Your task to perform on an android device: toggle notifications settings in the gmail app Image 0: 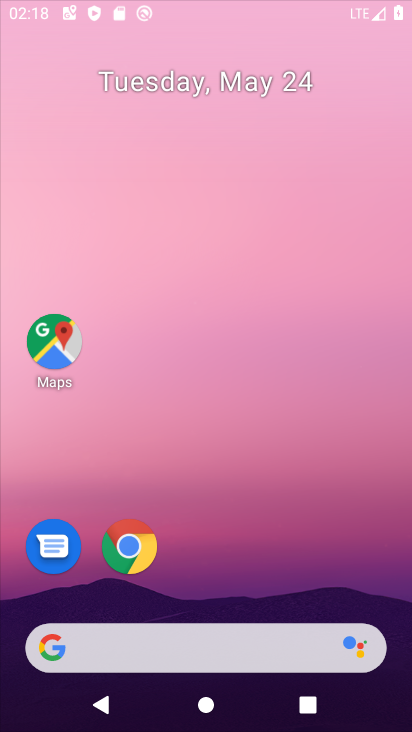
Step 0: drag from (202, 573) to (258, 84)
Your task to perform on an android device: toggle notifications settings in the gmail app Image 1: 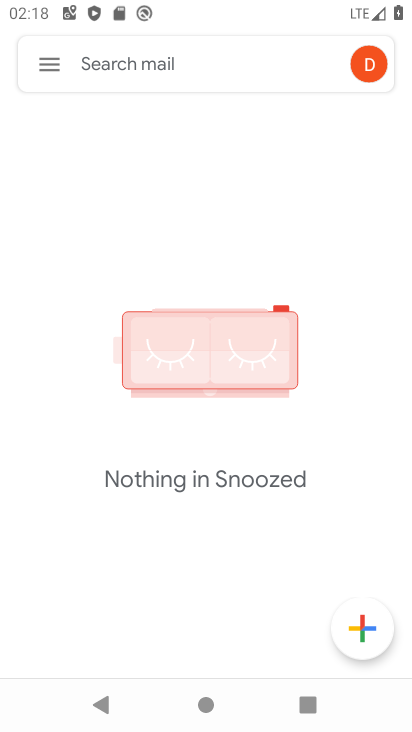
Step 1: press home button
Your task to perform on an android device: toggle notifications settings in the gmail app Image 2: 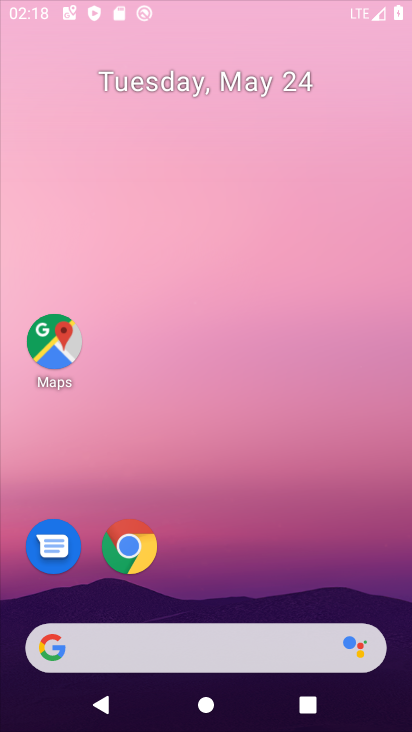
Step 2: drag from (207, 598) to (269, 20)
Your task to perform on an android device: toggle notifications settings in the gmail app Image 3: 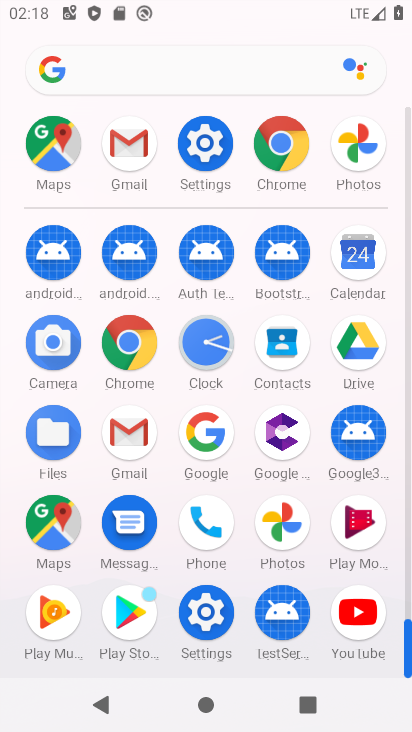
Step 3: click (114, 442)
Your task to perform on an android device: toggle notifications settings in the gmail app Image 4: 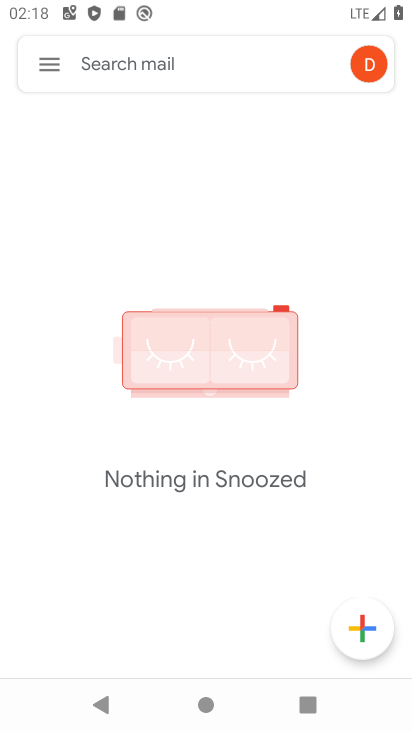
Step 4: click (48, 62)
Your task to perform on an android device: toggle notifications settings in the gmail app Image 5: 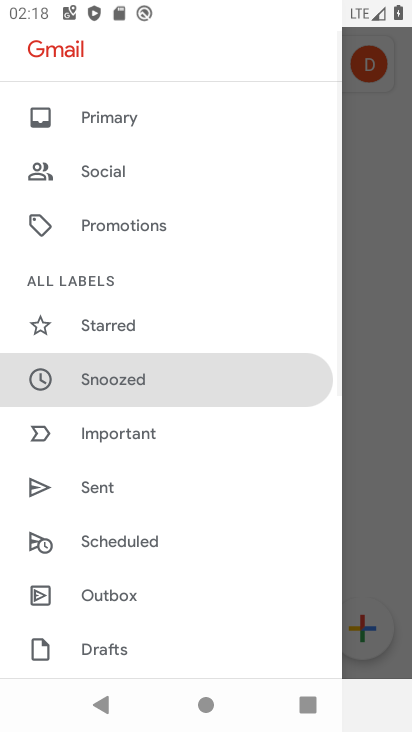
Step 5: drag from (154, 607) to (259, 12)
Your task to perform on an android device: toggle notifications settings in the gmail app Image 6: 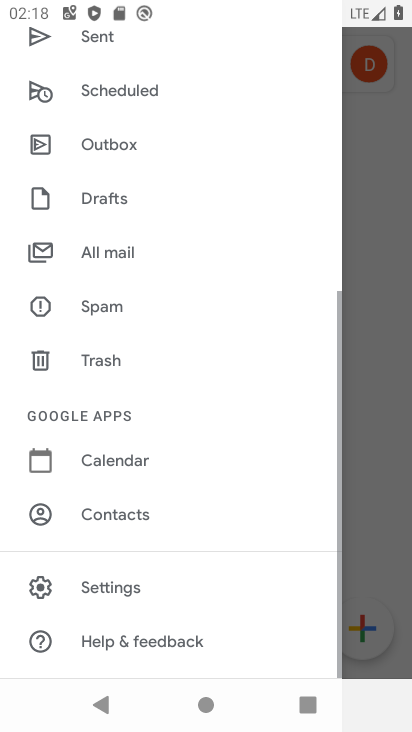
Step 6: click (103, 565)
Your task to perform on an android device: toggle notifications settings in the gmail app Image 7: 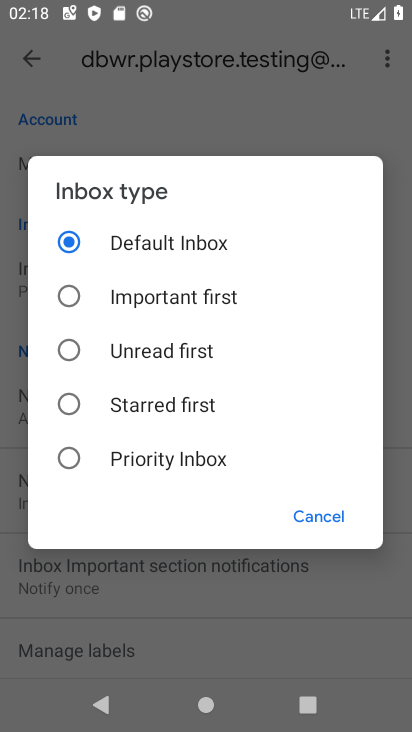
Step 7: click (329, 514)
Your task to perform on an android device: toggle notifications settings in the gmail app Image 8: 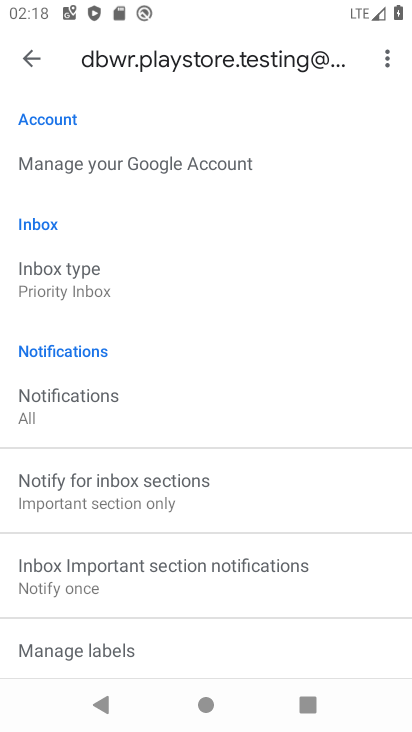
Step 8: drag from (117, 629) to (275, 106)
Your task to perform on an android device: toggle notifications settings in the gmail app Image 9: 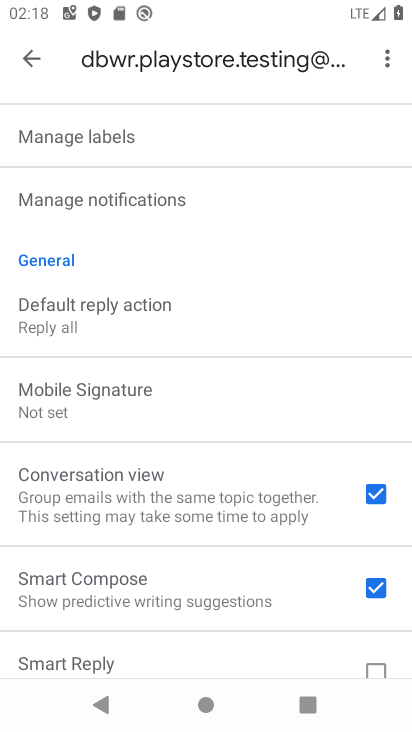
Step 9: click (157, 201)
Your task to perform on an android device: toggle notifications settings in the gmail app Image 10: 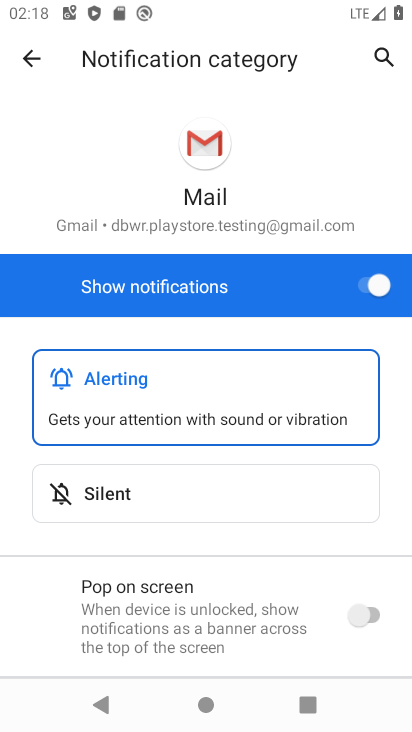
Step 10: drag from (281, 485) to (341, 275)
Your task to perform on an android device: toggle notifications settings in the gmail app Image 11: 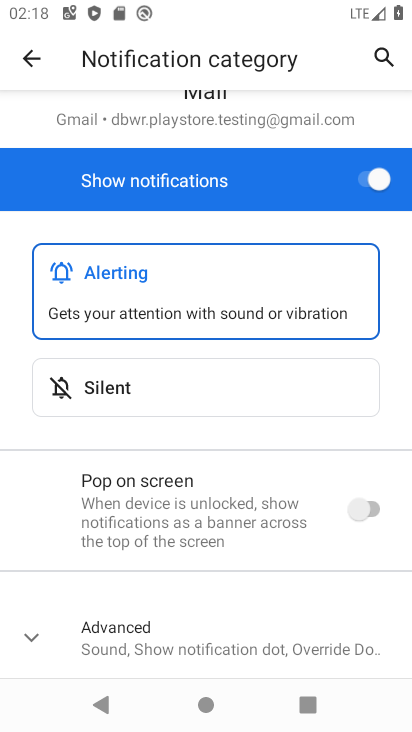
Step 11: click (355, 180)
Your task to perform on an android device: toggle notifications settings in the gmail app Image 12: 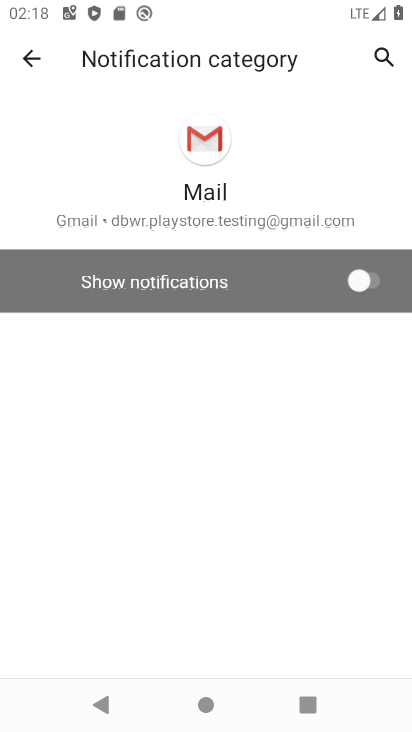
Step 12: task complete